Your task to perform on an android device: Show the shopping cart on newegg.com. Search for "acer predator" on newegg.com, select the first entry, add it to the cart, then select checkout. Image 0: 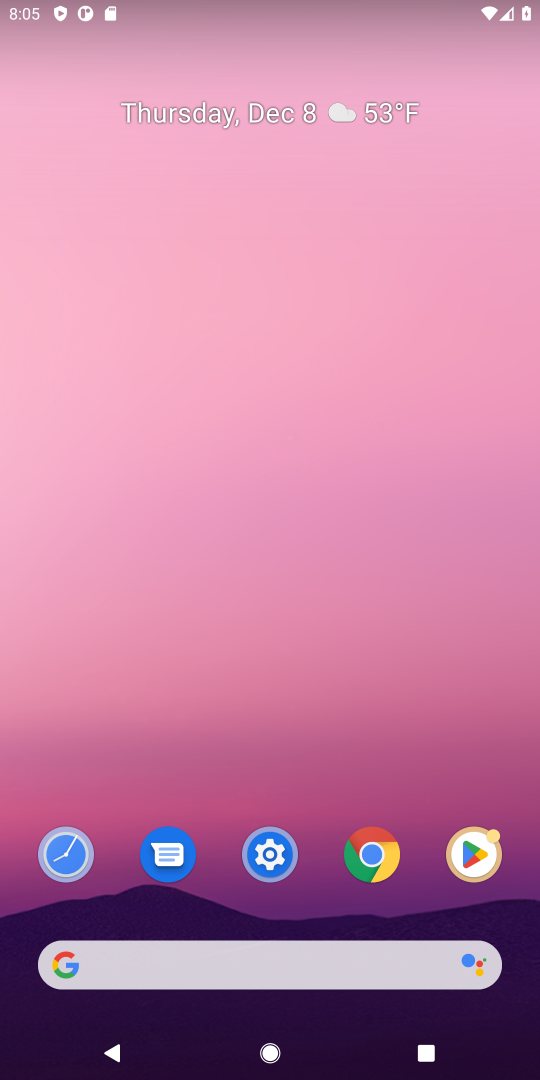
Step 0: click (89, 960)
Your task to perform on an android device: Show the shopping cart on newegg.com. Search for "acer predator" on newegg.com, select the first entry, add it to the cart, then select checkout. Image 1: 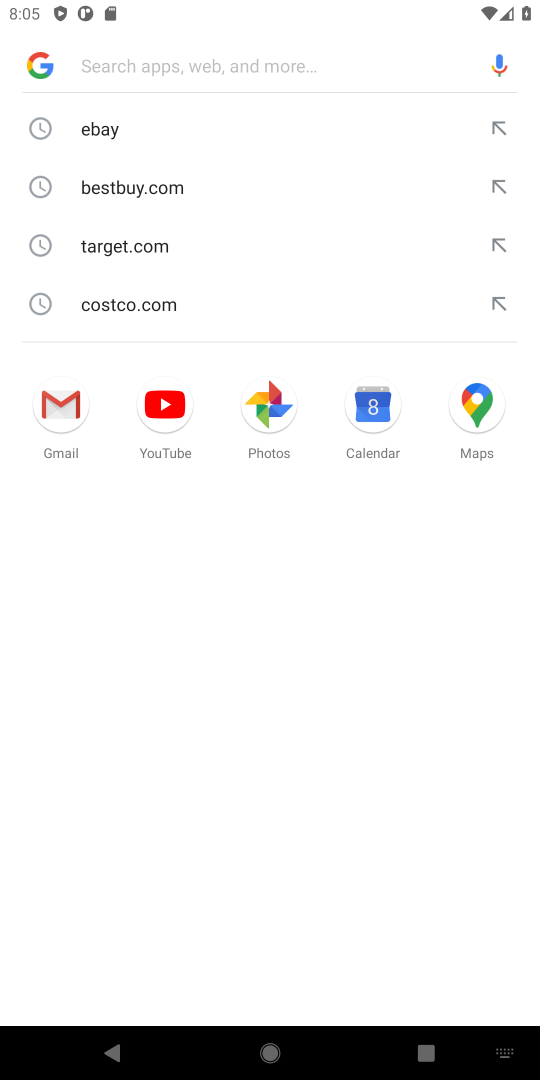
Step 1: press enter
Your task to perform on an android device: Show the shopping cart on newegg.com. Search for "acer predator" on newegg.com, select the first entry, add it to the cart, then select checkout. Image 2: 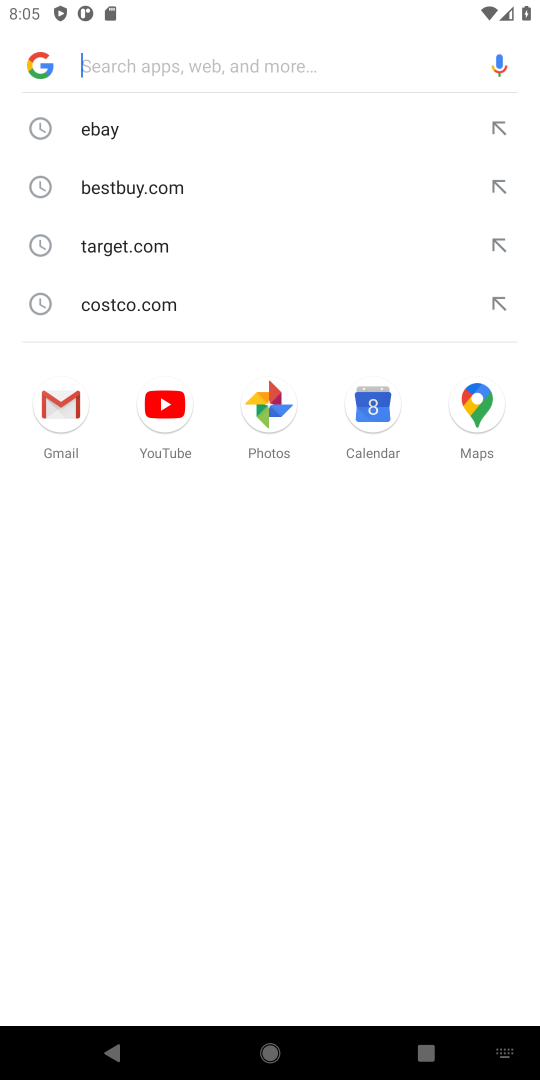
Step 2: type "newegg.com"
Your task to perform on an android device: Show the shopping cart on newegg.com. Search for "acer predator" on newegg.com, select the first entry, add it to the cart, then select checkout. Image 3: 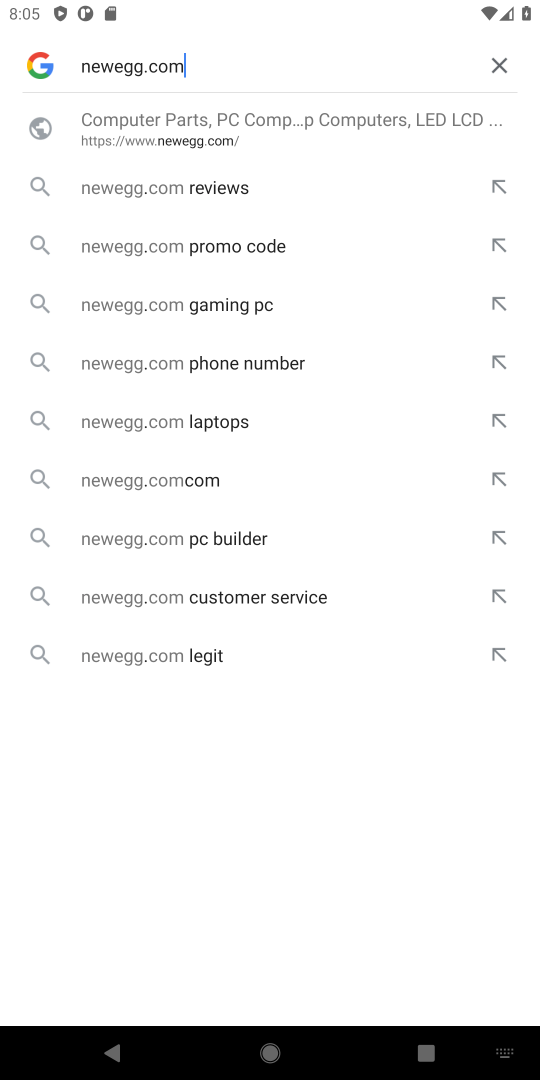
Step 3: press enter
Your task to perform on an android device: Show the shopping cart on newegg.com. Search for "acer predator" on newegg.com, select the first entry, add it to the cart, then select checkout. Image 4: 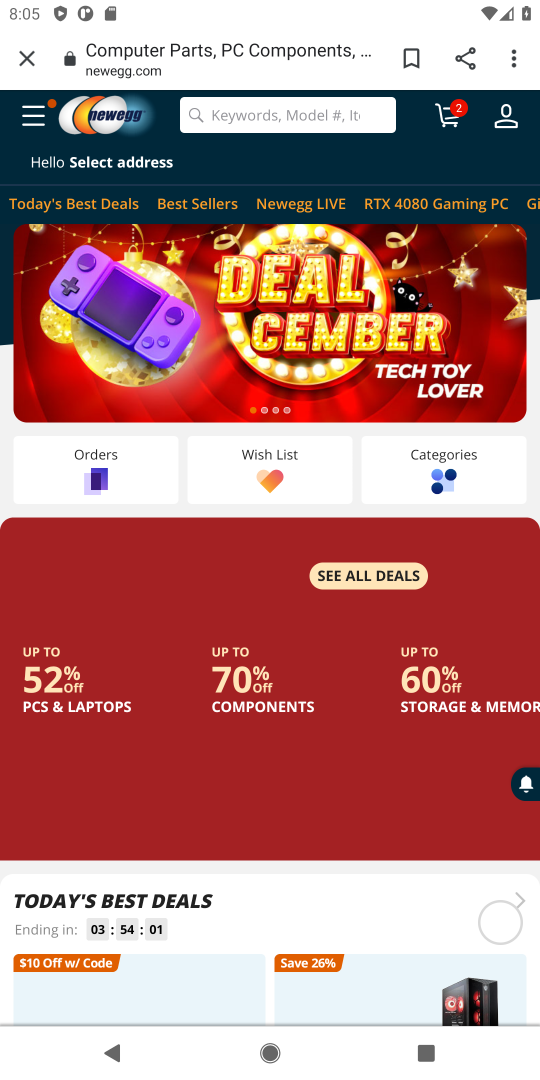
Step 4: click (446, 120)
Your task to perform on an android device: Show the shopping cart on newegg.com. Search for "acer predator" on newegg.com, select the first entry, add it to the cart, then select checkout. Image 5: 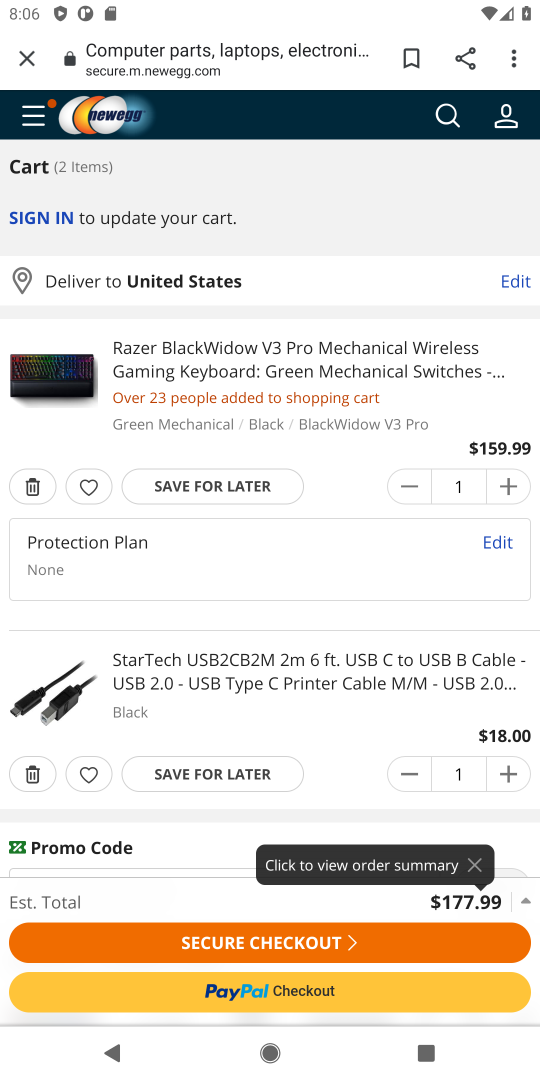
Step 5: click (447, 109)
Your task to perform on an android device: Show the shopping cart on newegg.com. Search for "acer predator" on newegg.com, select the first entry, add it to the cart, then select checkout. Image 6: 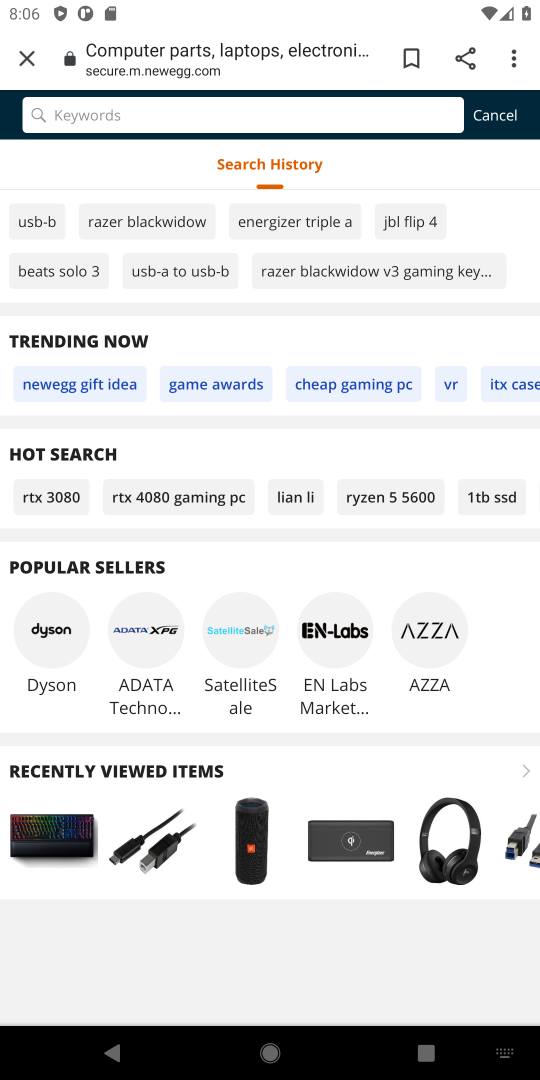
Step 6: type "acer predator"
Your task to perform on an android device: Show the shopping cart on newegg.com. Search for "acer predator" on newegg.com, select the first entry, add it to the cart, then select checkout. Image 7: 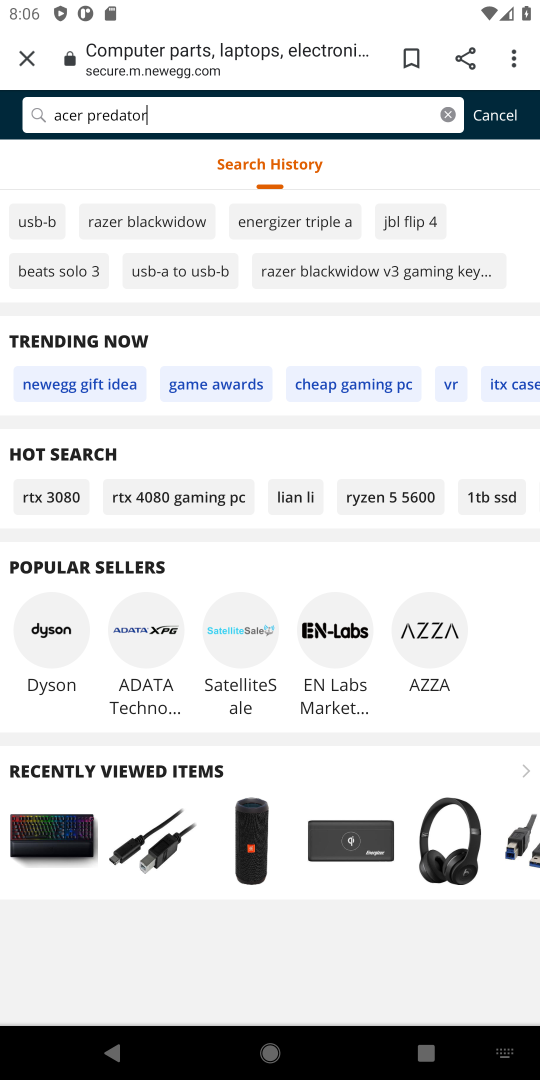
Step 7: press enter
Your task to perform on an android device: Show the shopping cart on newegg.com. Search for "acer predator" on newegg.com, select the first entry, add it to the cart, then select checkout. Image 8: 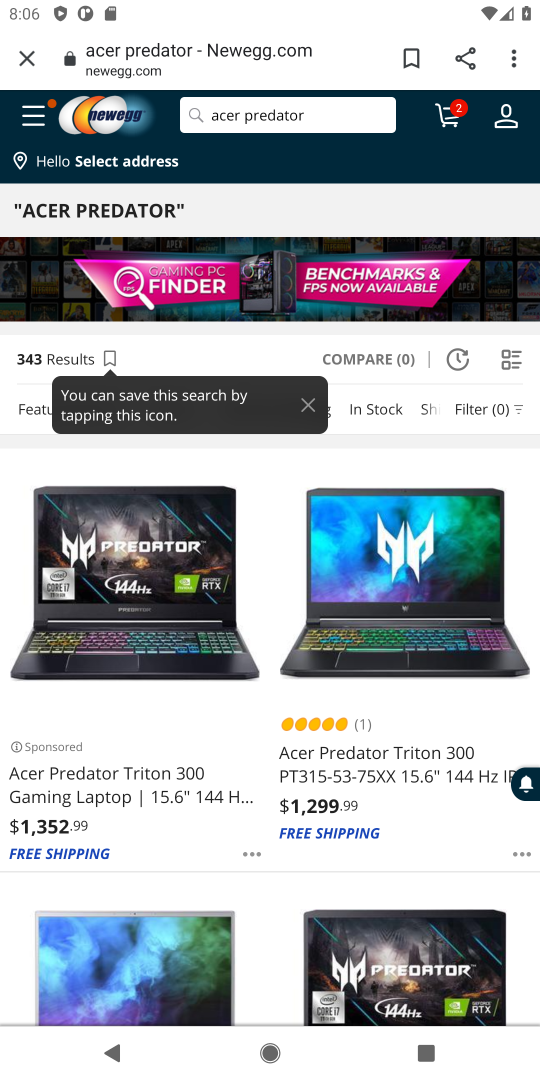
Step 8: drag from (250, 875) to (238, 540)
Your task to perform on an android device: Show the shopping cart on newegg.com. Search for "acer predator" on newegg.com, select the first entry, add it to the cart, then select checkout. Image 9: 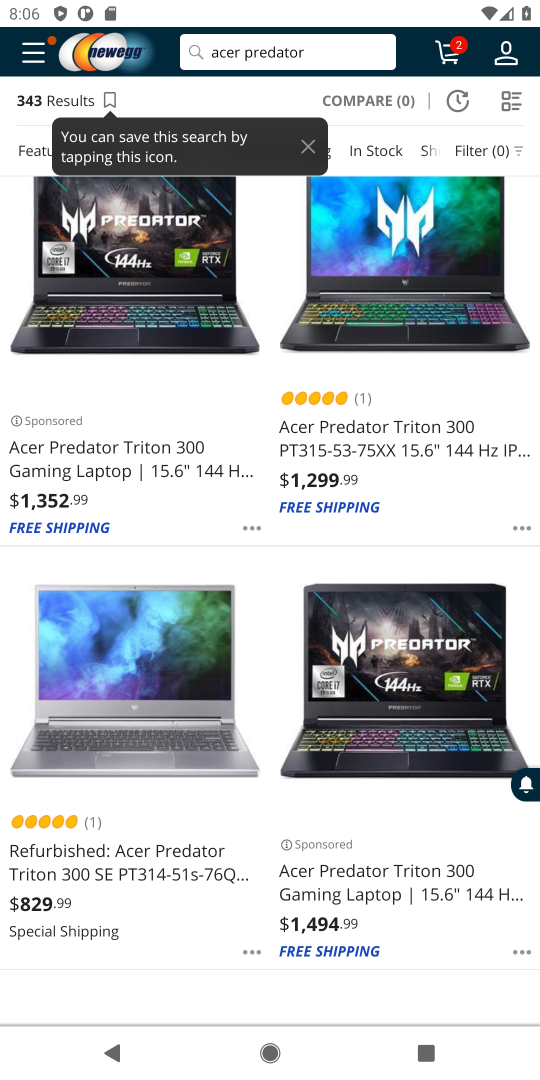
Step 9: click (80, 462)
Your task to perform on an android device: Show the shopping cart on newegg.com. Search for "acer predator" on newegg.com, select the first entry, add it to the cart, then select checkout. Image 10: 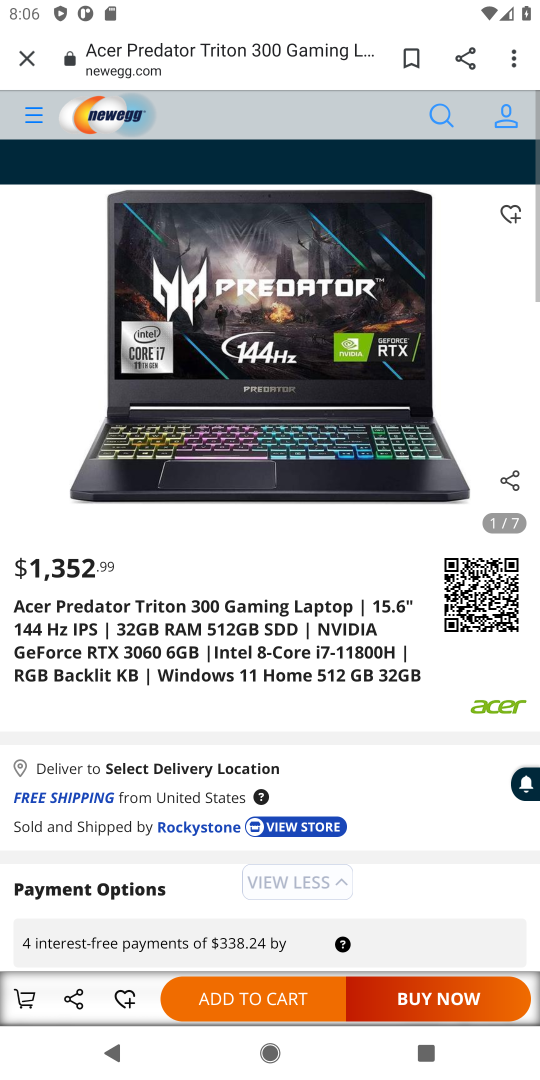
Step 10: click (229, 1008)
Your task to perform on an android device: Show the shopping cart on newegg.com. Search for "acer predator" on newegg.com, select the first entry, add it to the cart, then select checkout. Image 11: 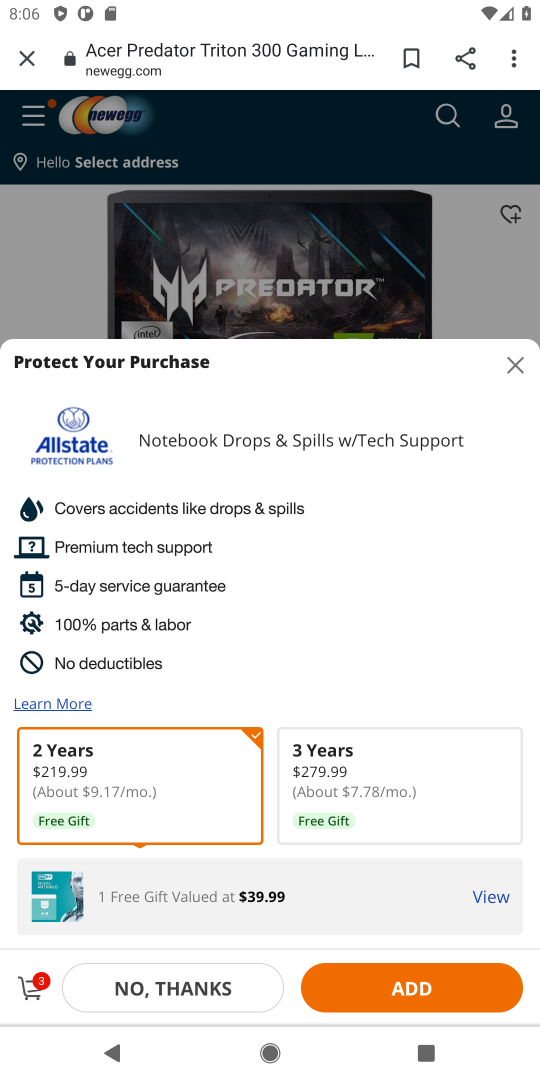
Step 11: click (181, 998)
Your task to perform on an android device: Show the shopping cart on newegg.com. Search for "acer predator" on newegg.com, select the first entry, add it to the cart, then select checkout. Image 12: 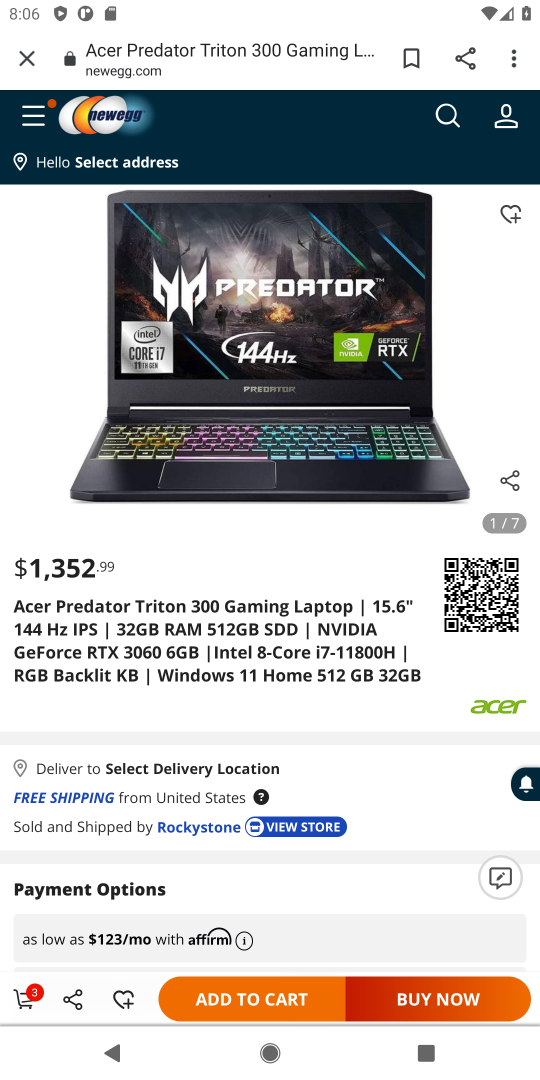
Step 12: task complete